Your task to perform on an android device: turn on improve location accuracy Image 0: 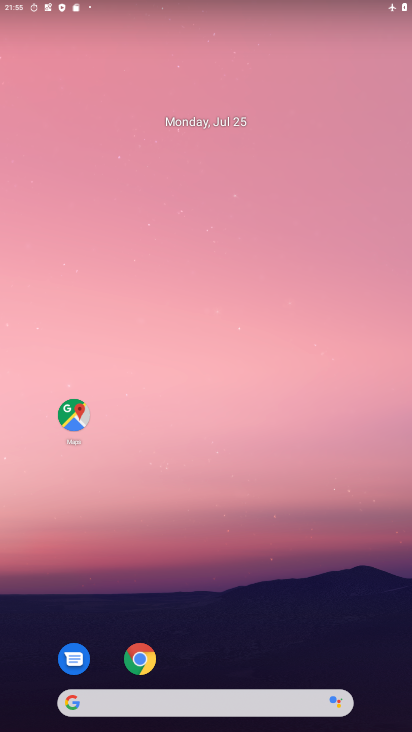
Step 0: drag from (194, 648) to (219, 294)
Your task to perform on an android device: turn on improve location accuracy Image 1: 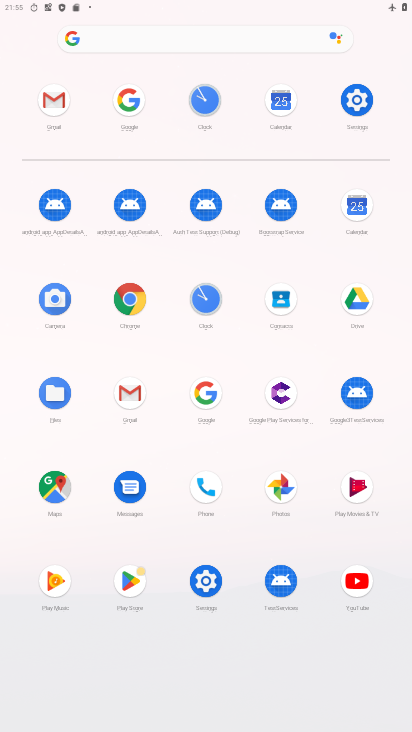
Step 1: click (358, 107)
Your task to perform on an android device: turn on improve location accuracy Image 2: 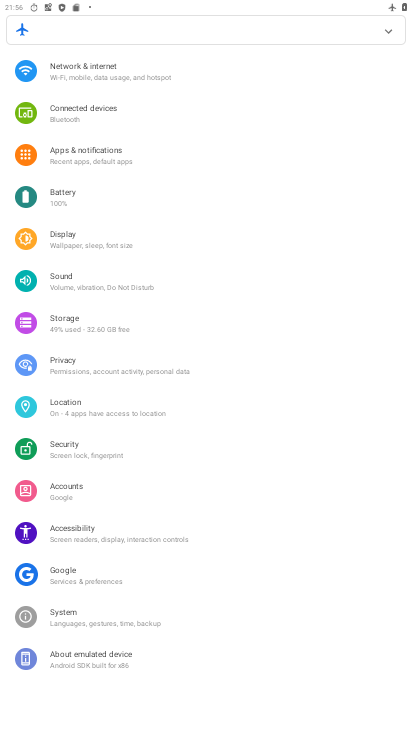
Step 2: click (120, 412)
Your task to perform on an android device: turn on improve location accuracy Image 3: 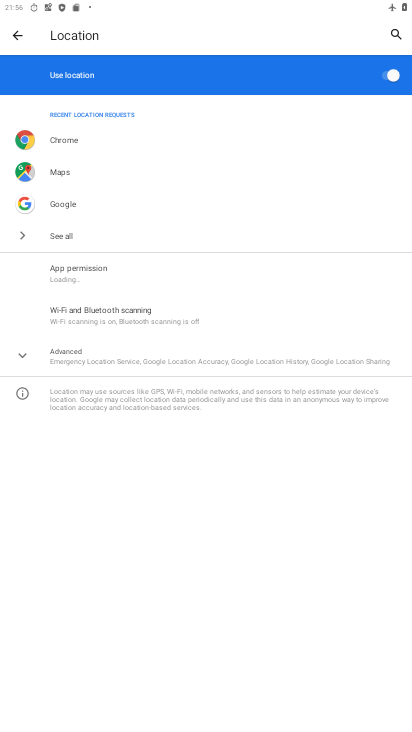
Step 3: click (117, 366)
Your task to perform on an android device: turn on improve location accuracy Image 4: 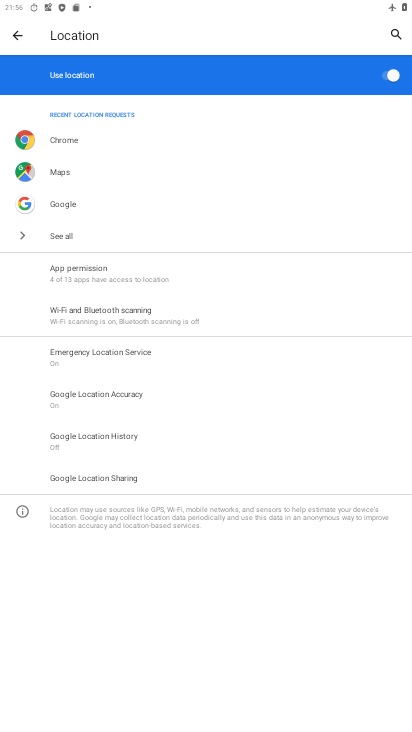
Step 4: click (121, 399)
Your task to perform on an android device: turn on improve location accuracy Image 5: 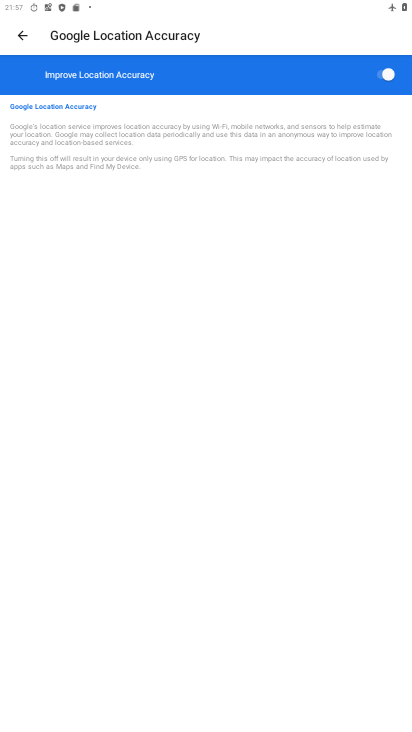
Step 5: task complete